Your task to perform on an android device: toggle wifi Image 0: 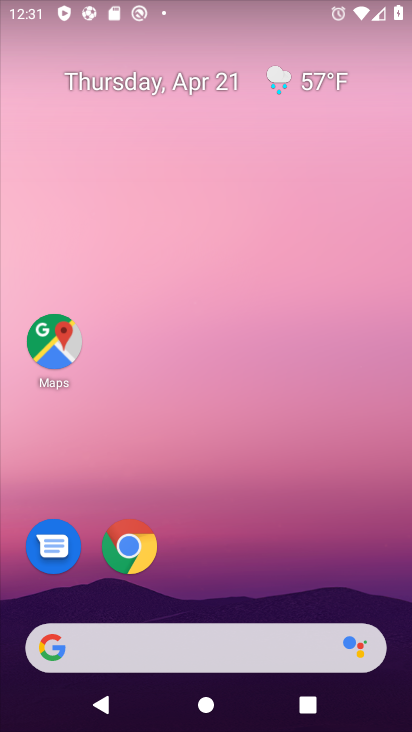
Step 0: drag from (287, 12) to (281, 415)
Your task to perform on an android device: toggle wifi Image 1: 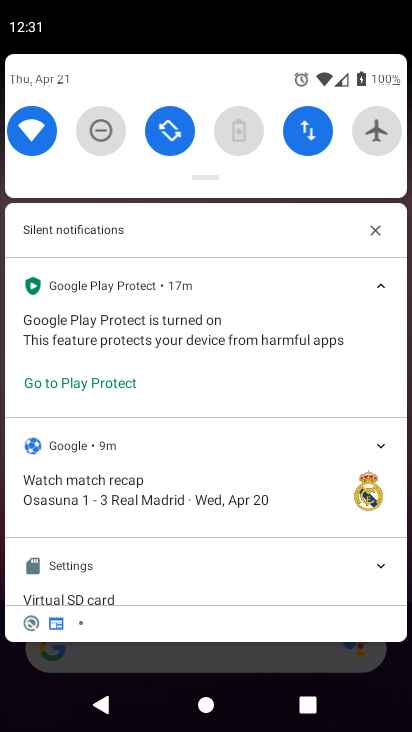
Step 1: click (32, 127)
Your task to perform on an android device: toggle wifi Image 2: 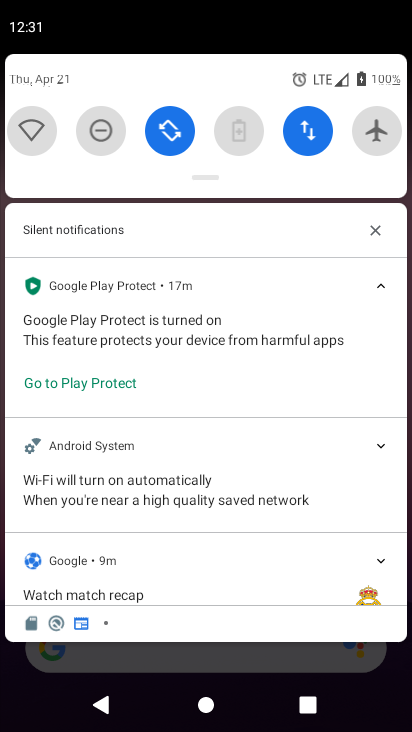
Step 2: task complete